Your task to perform on an android device: delete location history Image 0: 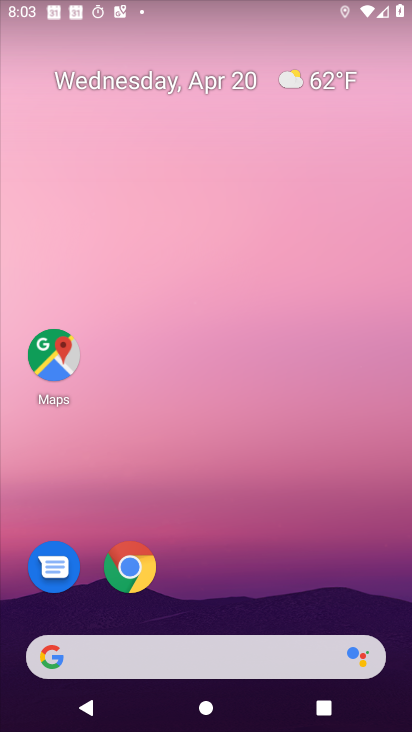
Step 0: click (56, 359)
Your task to perform on an android device: delete location history Image 1: 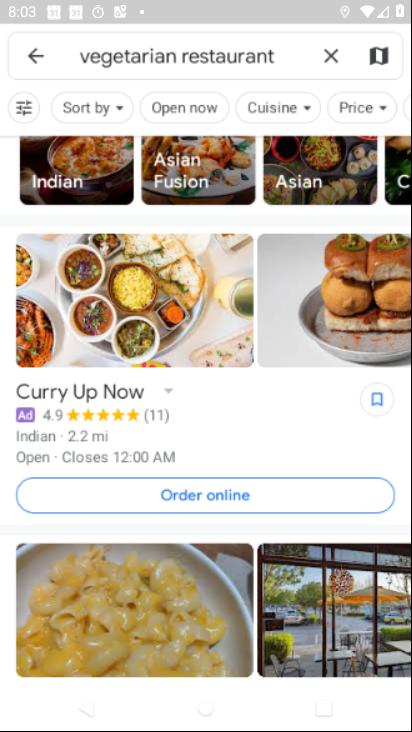
Step 1: click (331, 56)
Your task to perform on an android device: delete location history Image 2: 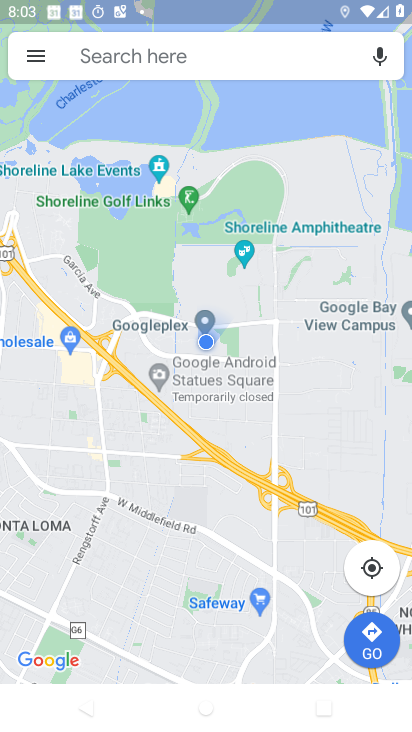
Step 2: click (29, 60)
Your task to perform on an android device: delete location history Image 3: 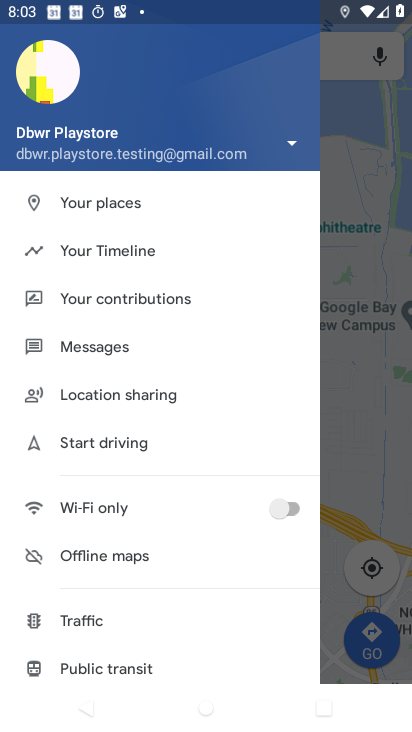
Step 3: click (97, 249)
Your task to perform on an android device: delete location history Image 4: 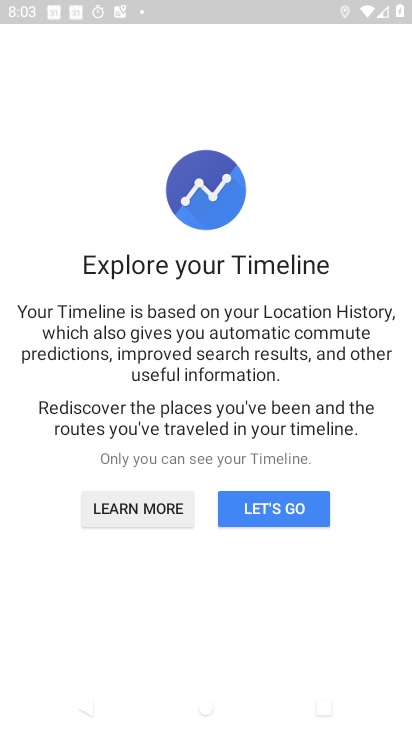
Step 4: click (267, 516)
Your task to perform on an android device: delete location history Image 5: 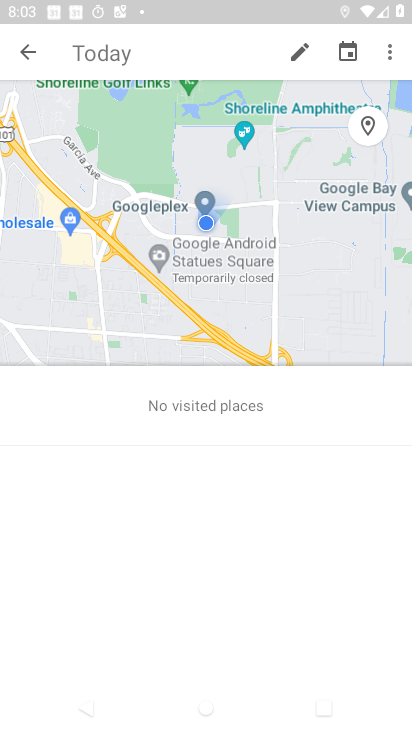
Step 5: click (388, 53)
Your task to perform on an android device: delete location history Image 6: 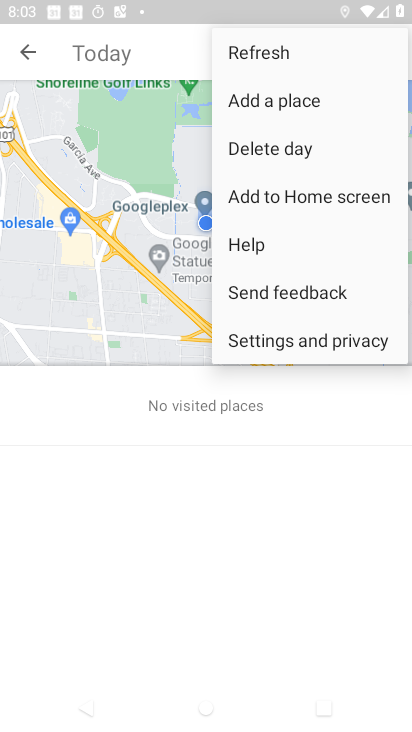
Step 6: click (286, 338)
Your task to perform on an android device: delete location history Image 7: 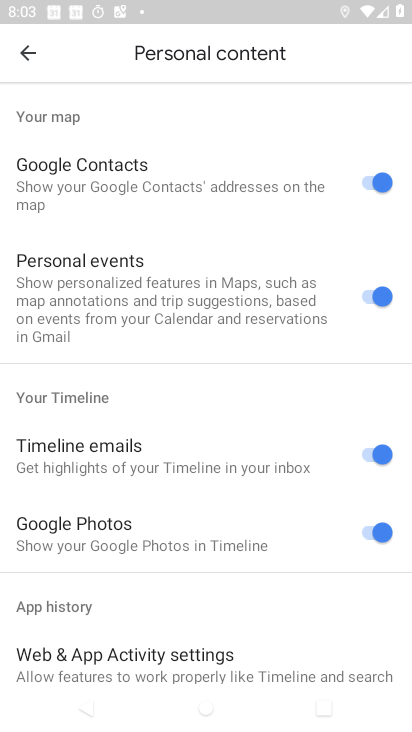
Step 7: drag from (187, 599) to (245, 94)
Your task to perform on an android device: delete location history Image 8: 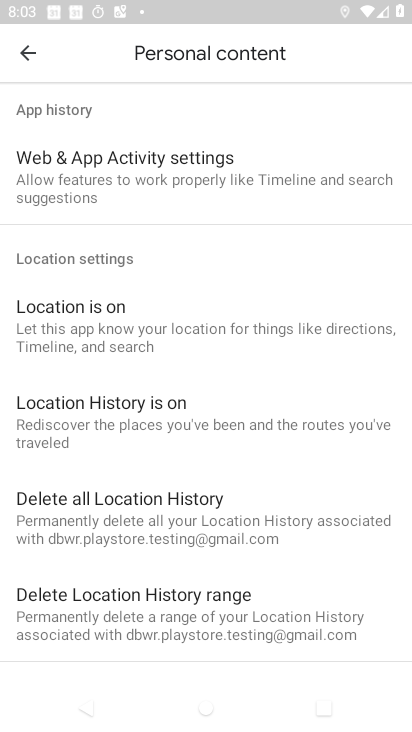
Step 8: click (111, 497)
Your task to perform on an android device: delete location history Image 9: 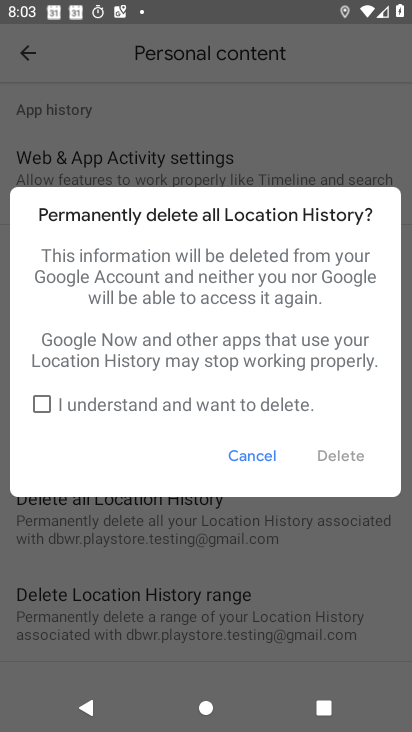
Step 9: click (44, 398)
Your task to perform on an android device: delete location history Image 10: 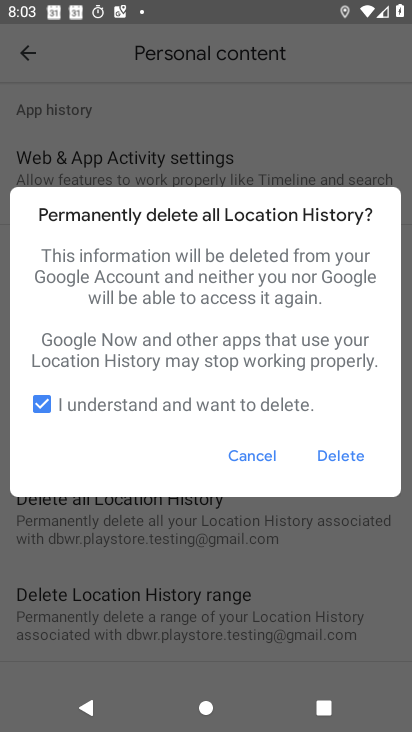
Step 10: click (337, 457)
Your task to perform on an android device: delete location history Image 11: 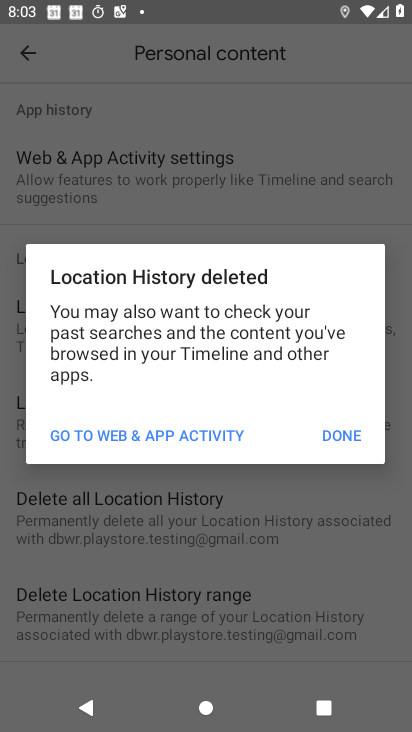
Step 11: click (344, 437)
Your task to perform on an android device: delete location history Image 12: 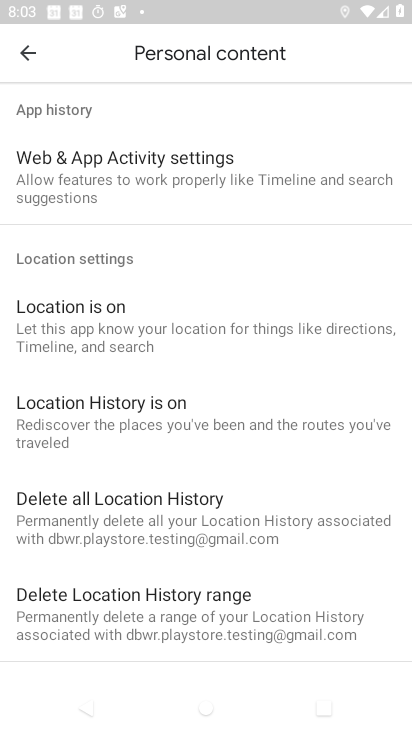
Step 12: task complete